Your task to perform on an android device: Check the settings for the Google Maps app Image 0: 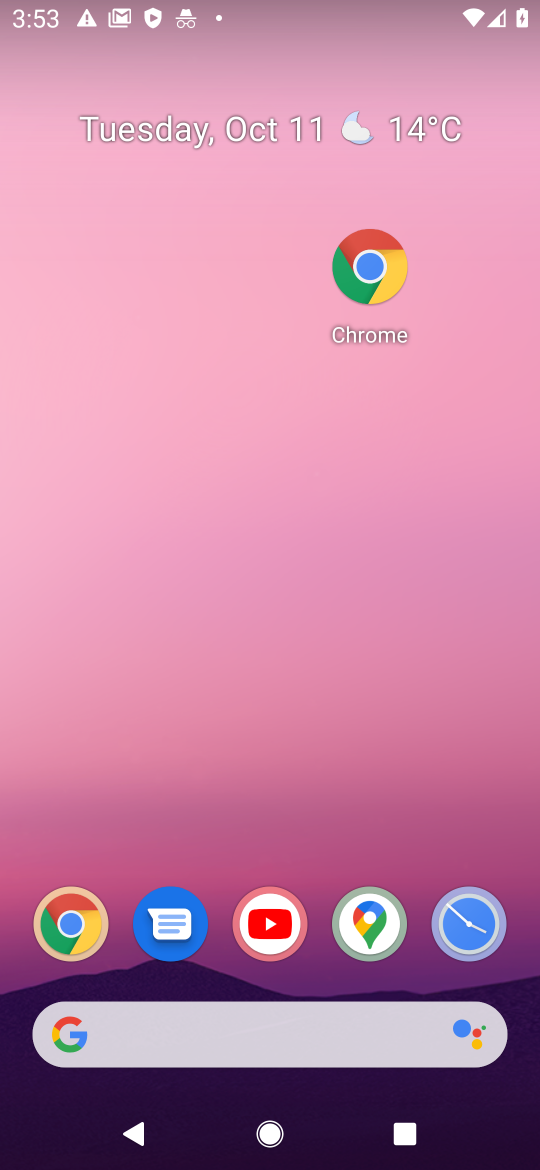
Step 0: click (370, 925)
Your task to perform on an android device: Check the settings for the Google Maps app Image 1: 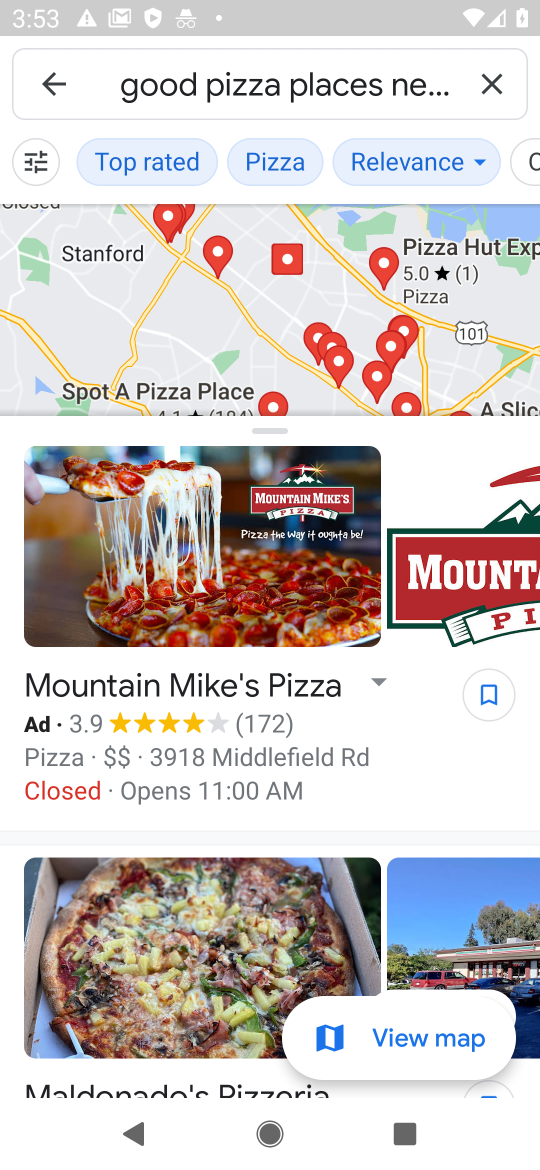
Step 1: click (40, 80)
Your task to perform on an android device: Check the settings for the Google Maps app Image 2: 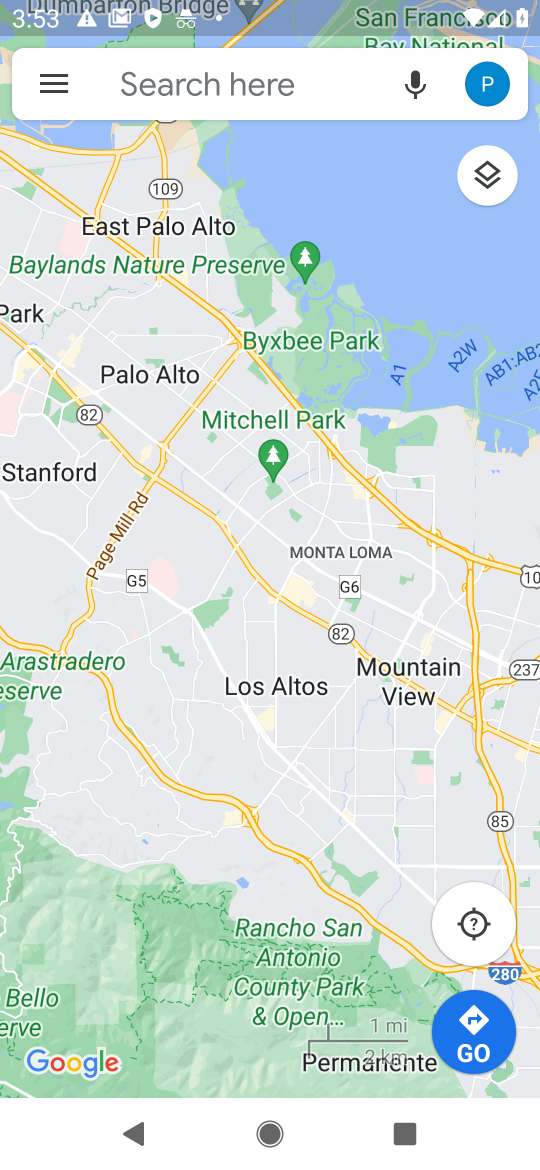
Step 2: click (497, 88)
Your task to perform on an android device: Check the settings for the Google Maps app Image 3: 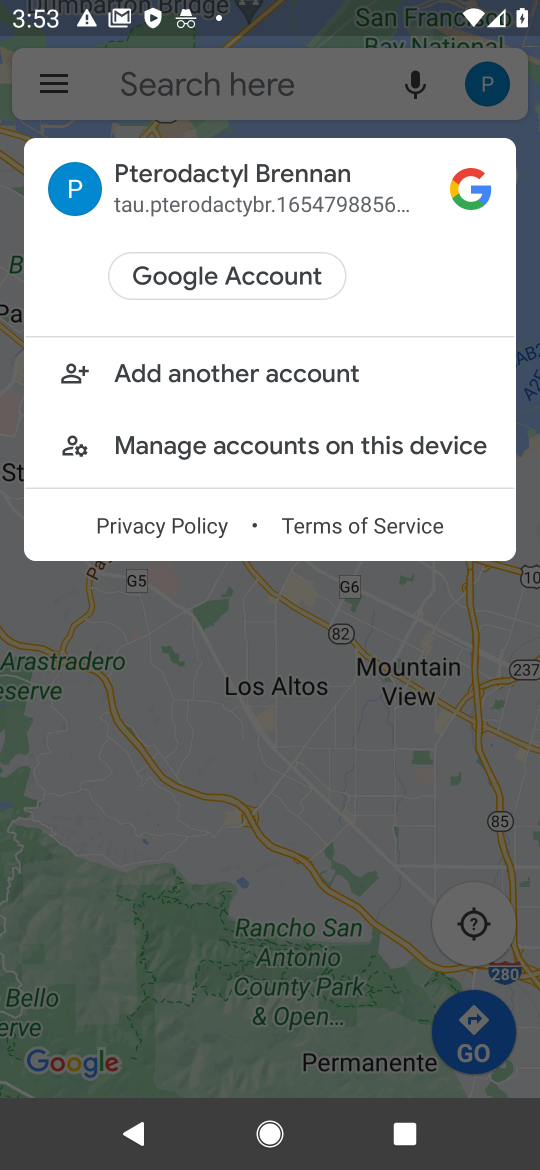
Step 3: click (370, 626)
Your task to perform on an android device: Check the settings for the Google Maps app Image 4: 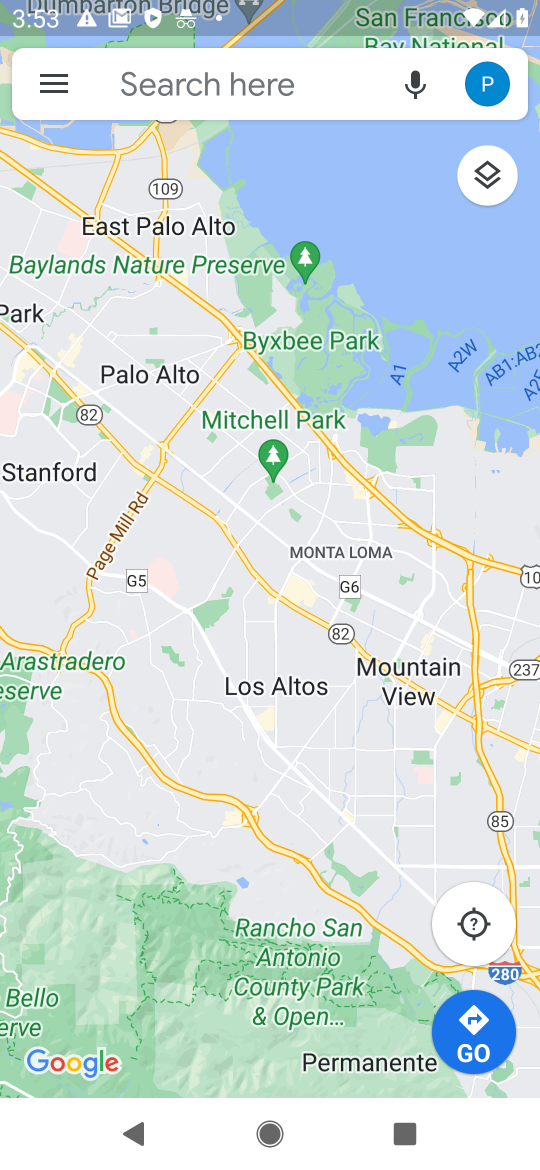
Step 4: click (50, 80)
Your task to perform on an android device: Check the settings for the Google Maps app Image 5: 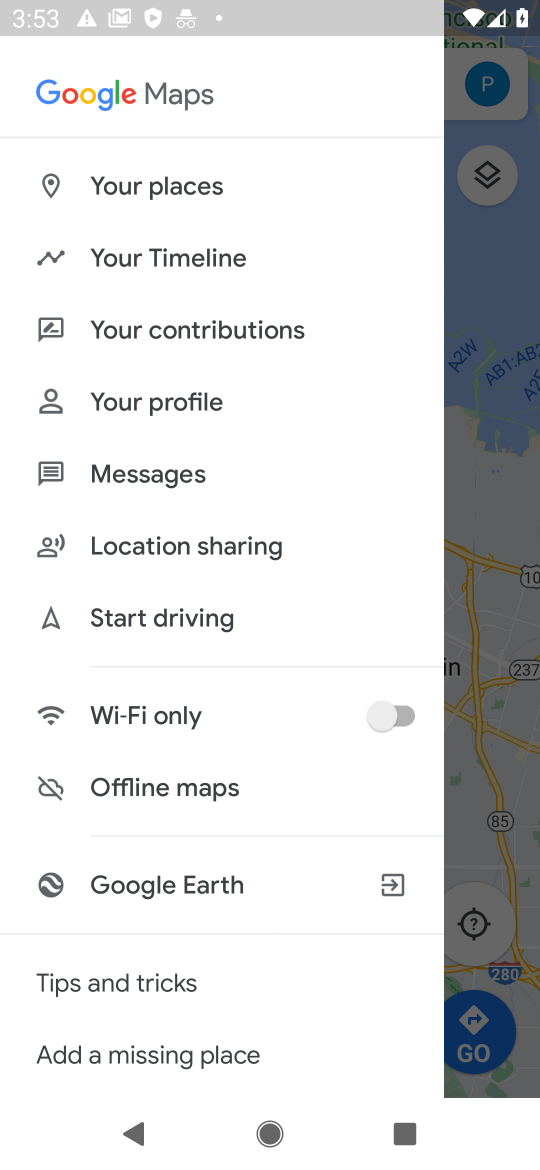
Step 5: drag from (363, 937) to (385, 409)
Your task to perform on an android device: Check the settings for the Google Maps app Image 6: 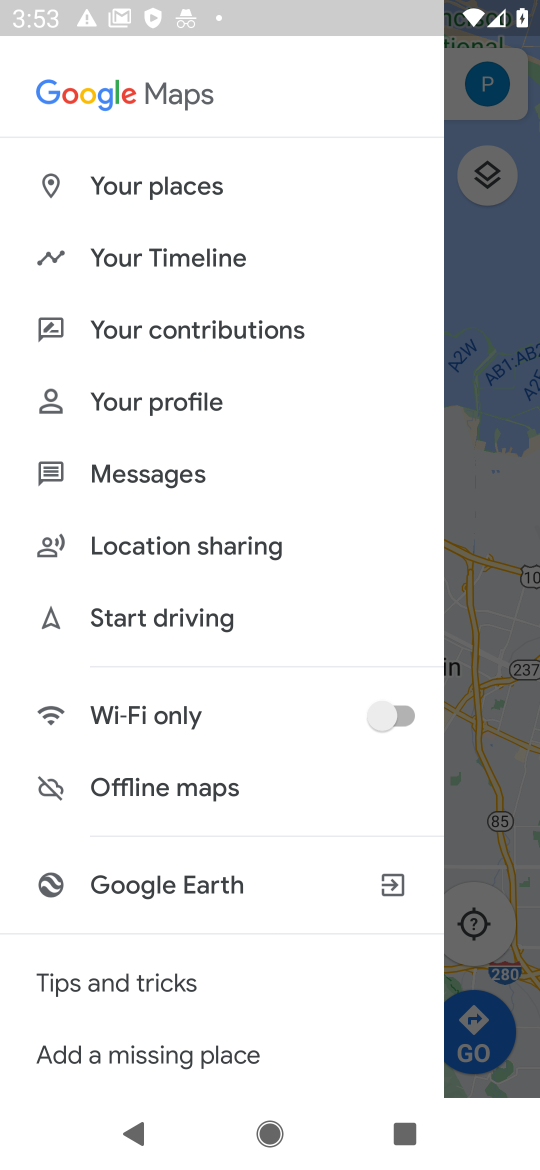
Step 6: drag from (332, 970) to (375, 43)
Your task to perform on an android device: Check the settings for the Google Maps app Image 7: 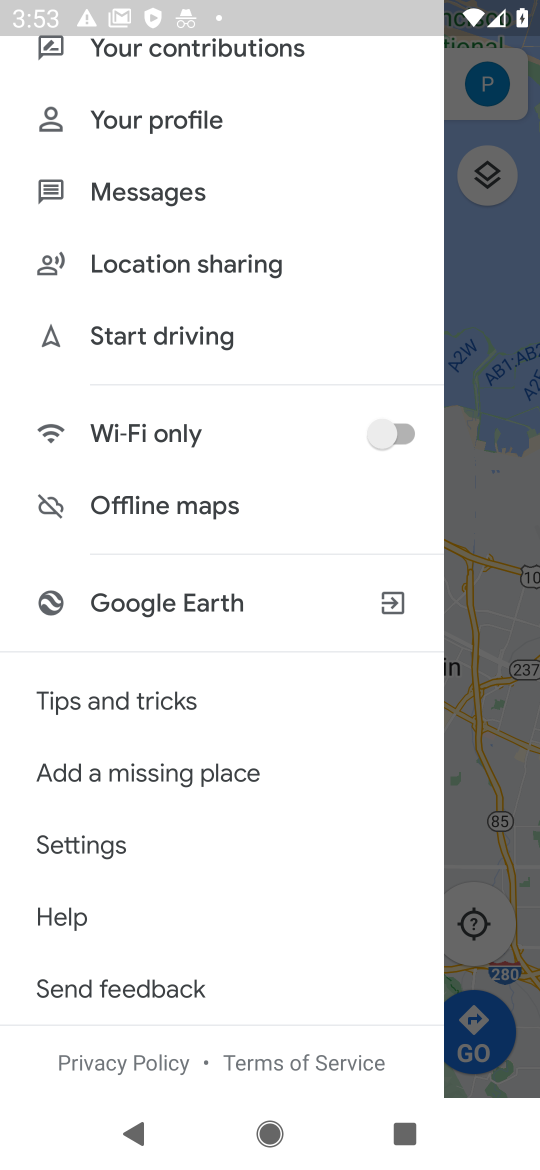
Step 7: click (99, 844)
Your task to perform on an android device: Check the settings for the Google Maps app Image 8: 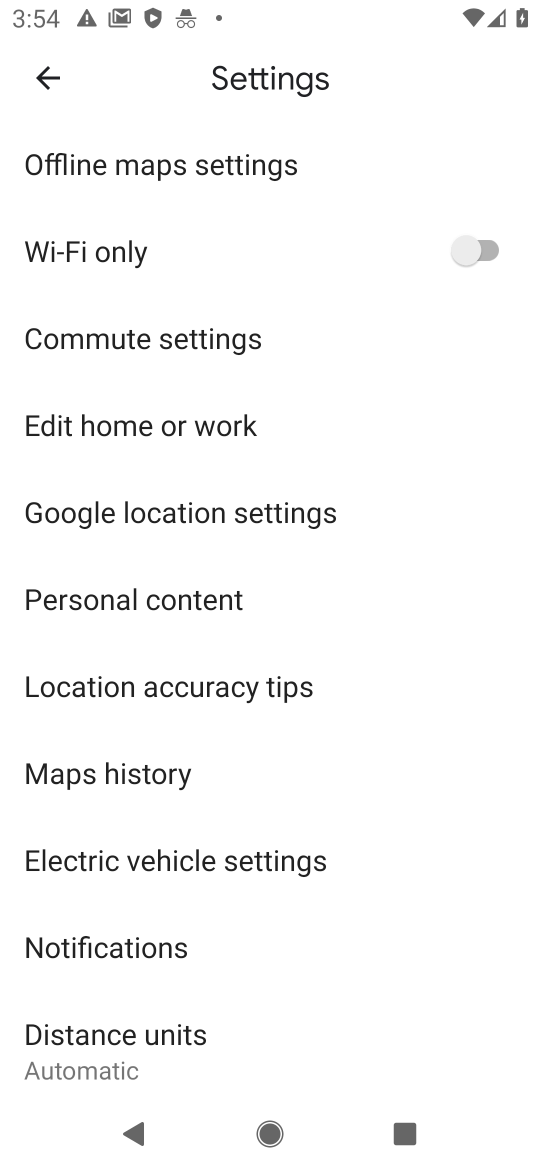
Step 8: task complete